Your task to perform on an android device: open wifi settings Image 0: 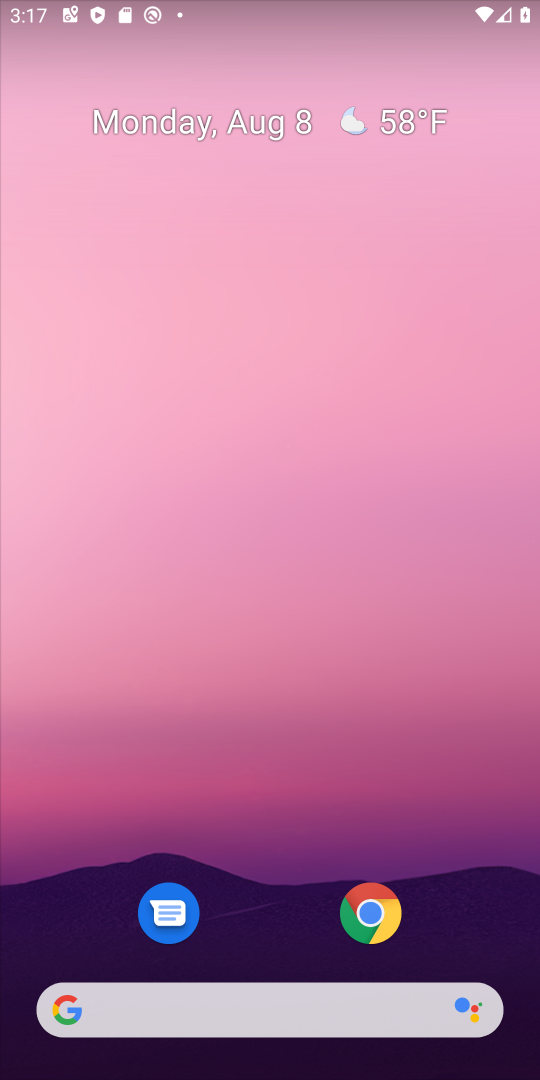
Step 0: press home button
Your task to perform on an android device: open wifi settings Image 1: 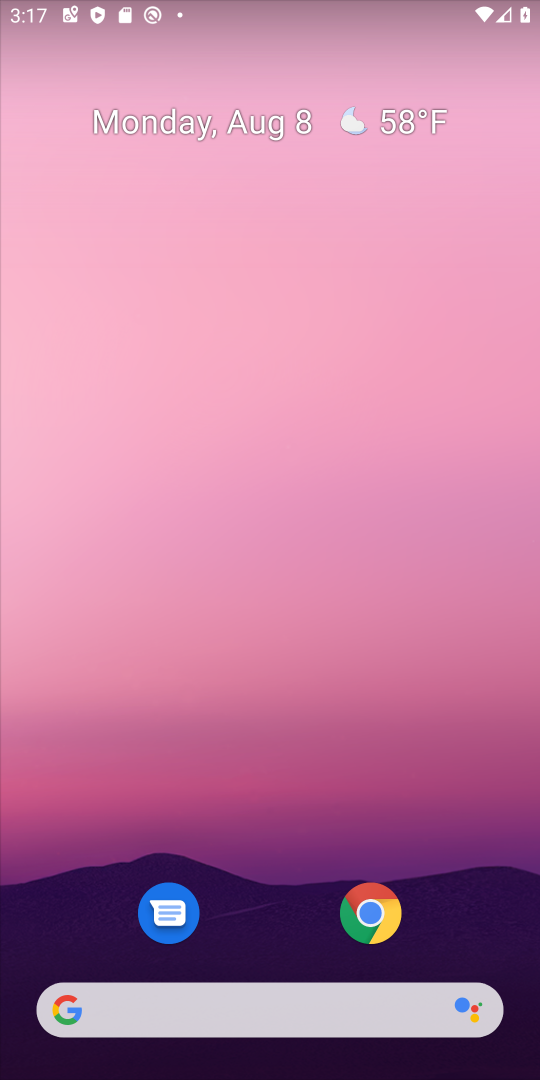
Step 1: drag from (443, 904) to (480, 262)
Your task to perform on an android device: open wifi settings Image 2: 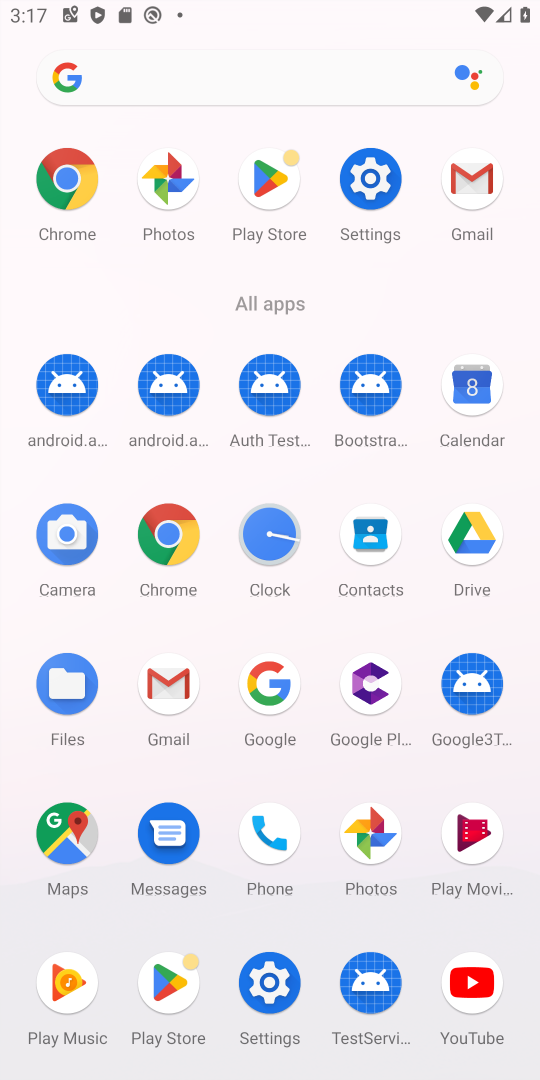
Step 2: click (367, 179)
Your task to perform on an android device: open wifi settings Image 3: 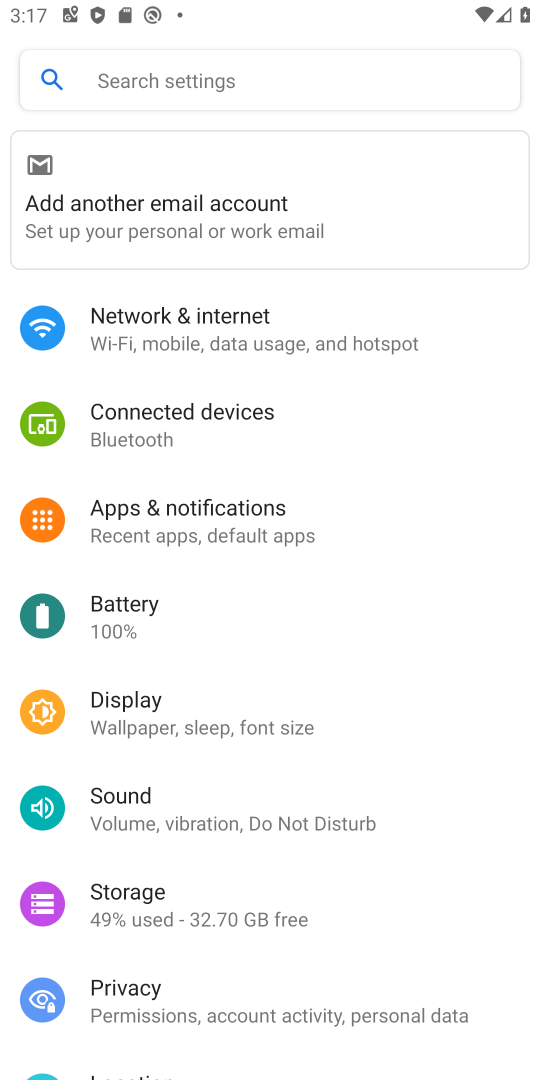
Step 3: click (383, 328)
Your task to perform on an android device: open wifi settings Image 4: 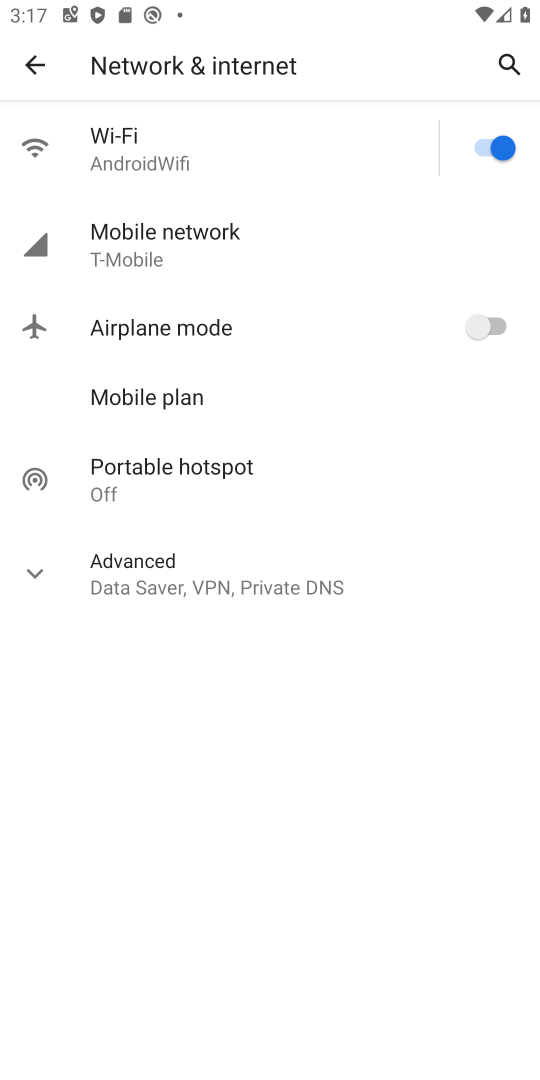
Step 4: click (172, 136)
Your task to perform on an android device: open wifi settings Image 5: 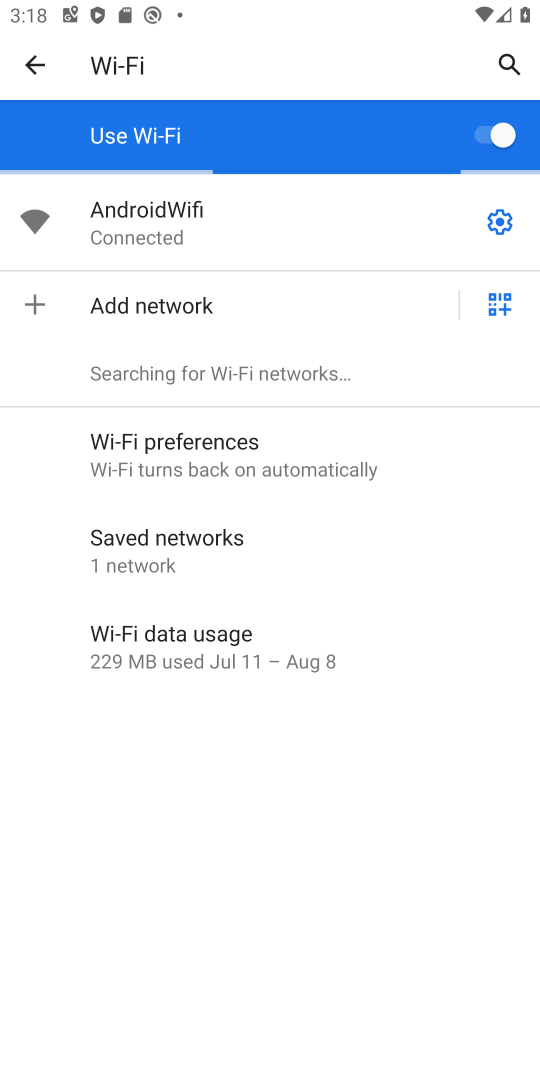
Step 5: task complete